Your task to perform on an android device: check out phone information Image 0: 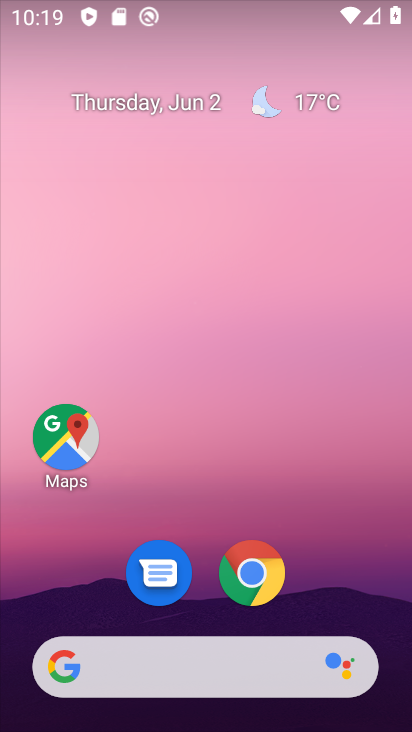
Step 0: task complete